Your task to perform on an android device: turn off location Image 0: 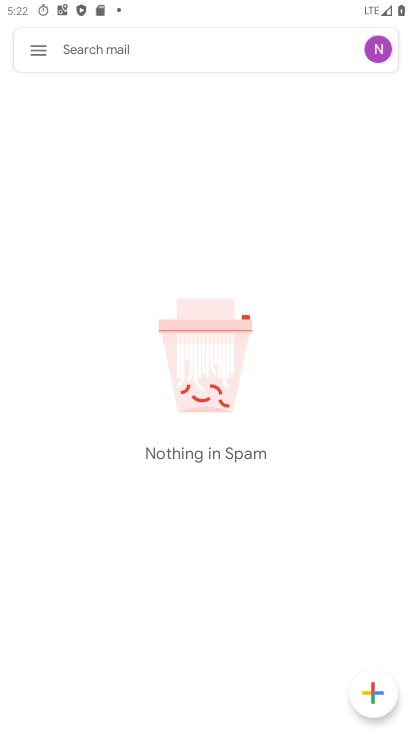
Step 0: press home button
Your task to perform on an android device: turn off location Image 1: 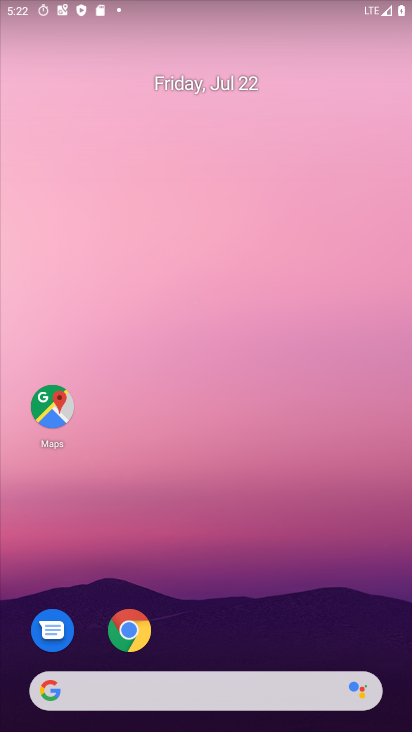
Step 1: drag from (286, 701) to (277, 11)
Your task to perform on an android device: turn off location Image 2: 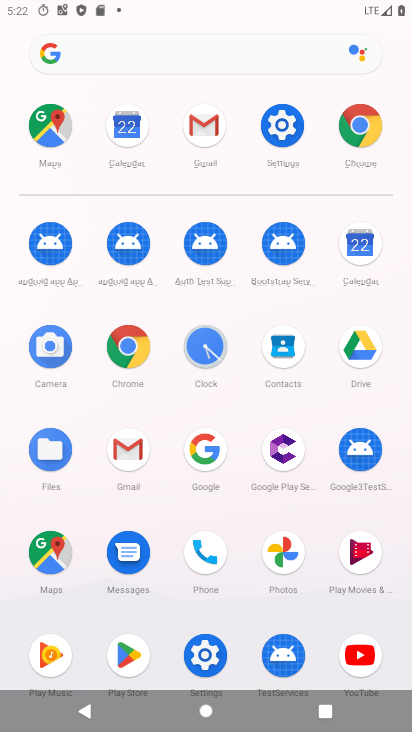
Step 2: click (283, 125)
Your task to perform on an android device: turn off location Image 3: 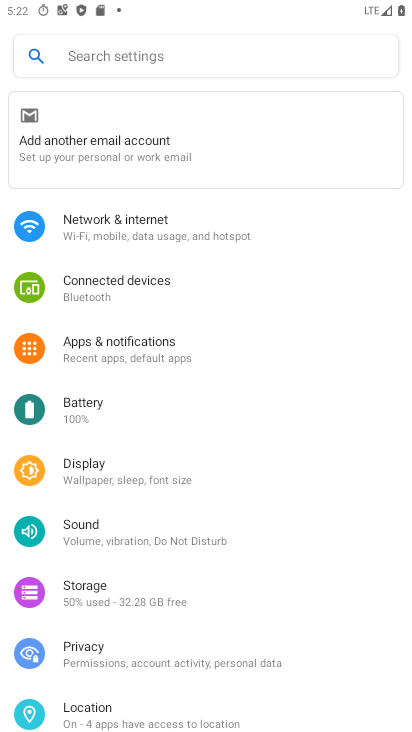
Step 3: click (98, 707)
Your task to perform on an android device: turn off location Image 4: 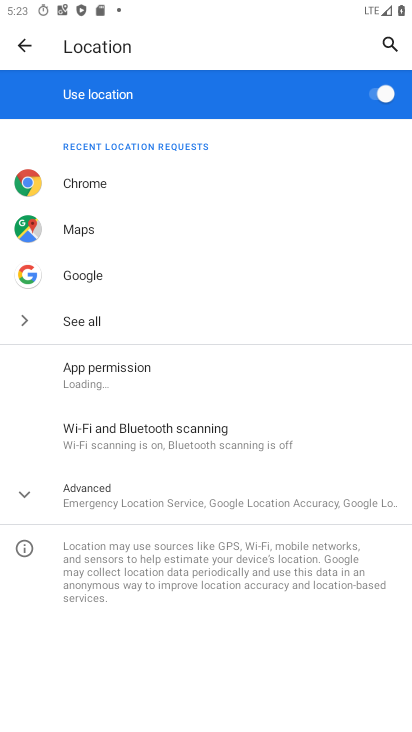
Step 4: click (375, 89)
Your task to perform on an android device: turn off location Image 5: 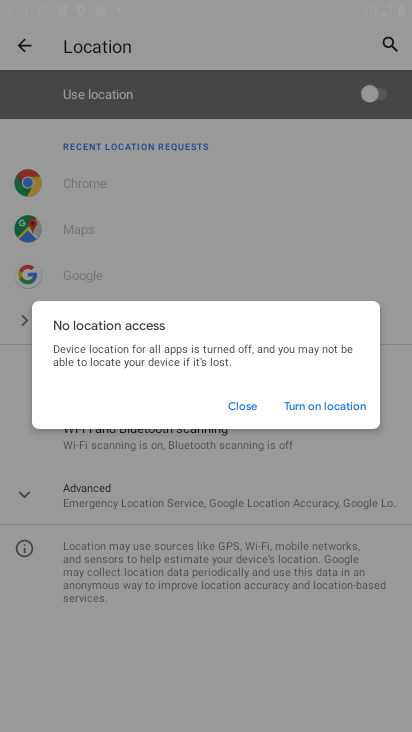
Step 5: task complete